Your task to perform on an android device: check android version Image 0: 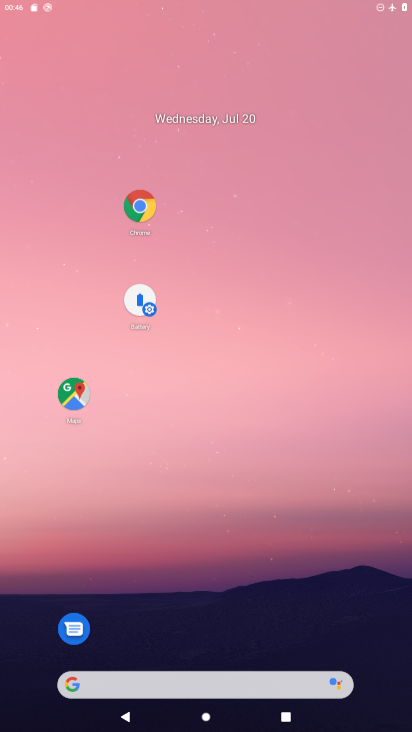
Step 0: drag from (171, 501) to (339, 41)
Your task to perform on an android device: check android version Image 1: 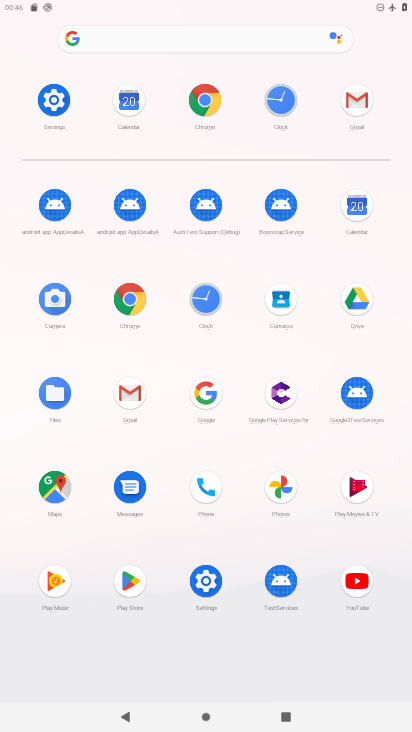
Step 1: click (194, 598)
Your task to perform on an android device: check android version Image 2: 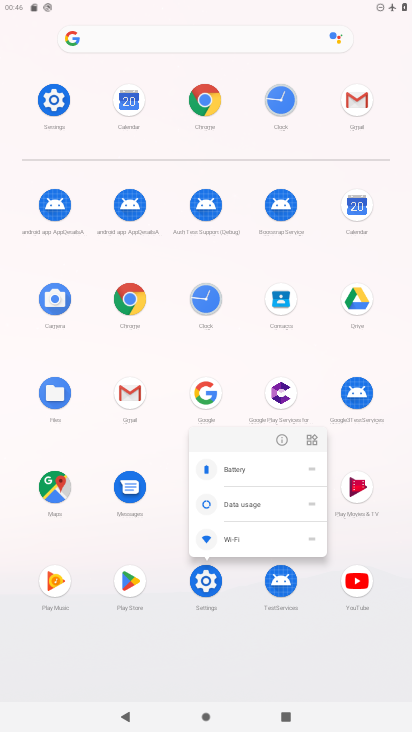
Step 2: click (279, 440)
Your task to perform on an android device: check android version Image 3: 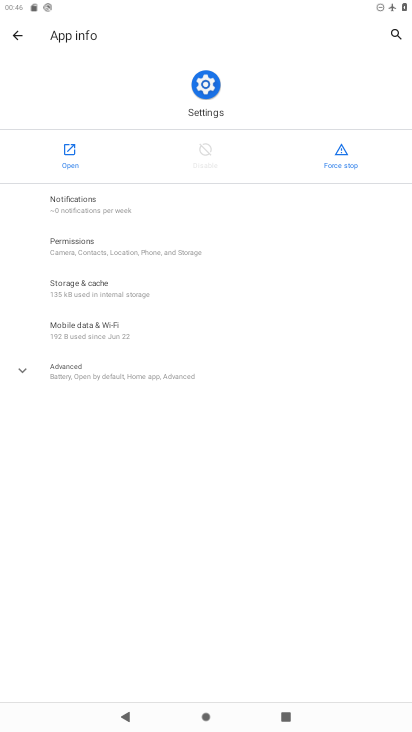
Step 3: click (74, 167)
Your task to perform on an android device: check android version Image 4: 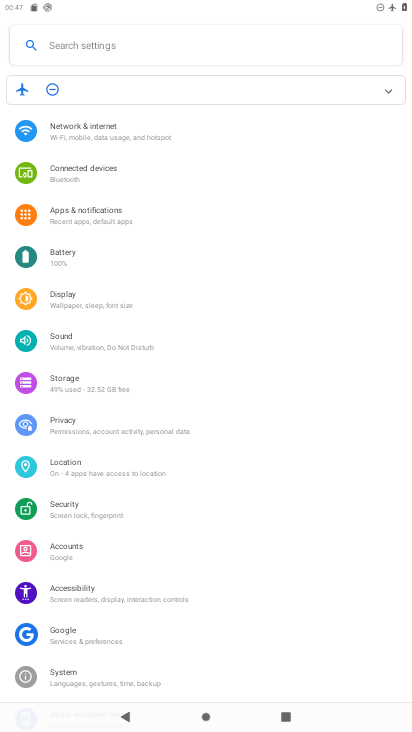
Step 4: click (280, 71)
Your task to perform on an android device: check android version Image 5: 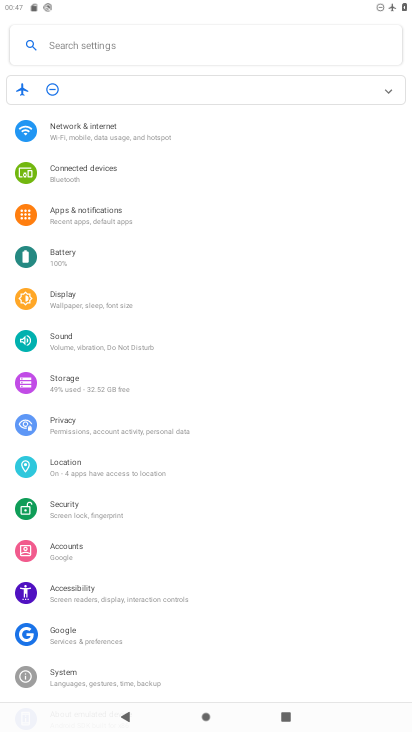
Step 5: drag from (96, 659) to (266, 11)
Your task to perform on an android device: check android version Image 6: 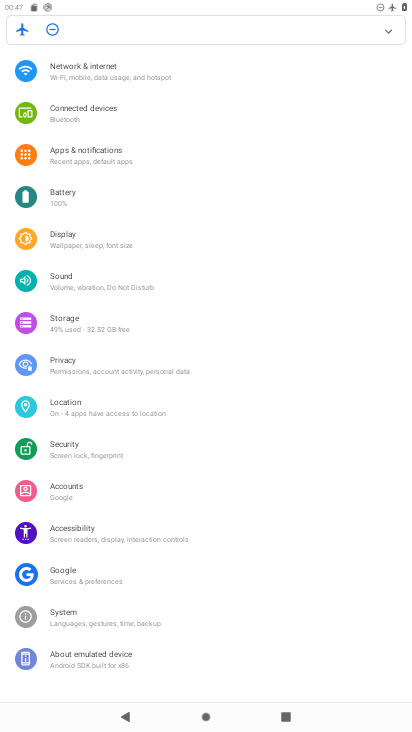
Step 6: click (125, 661)
Your task to perform on an android device: check android version Image 7: 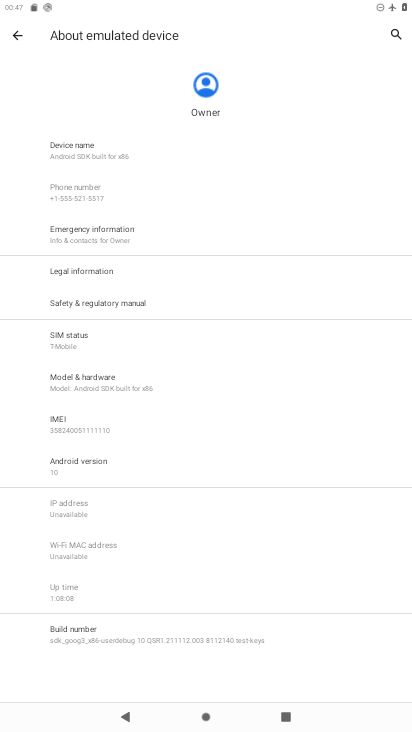
Step 7: click (94, 461)
Your task to perform on an android device: check android version Image 8: 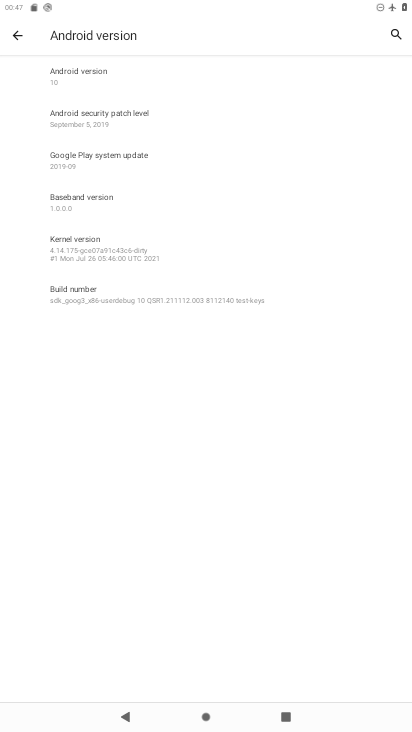
Step 8: drag from (186, 484) to (272, 205)
Your task to perform on an android device: check android version Image 9: 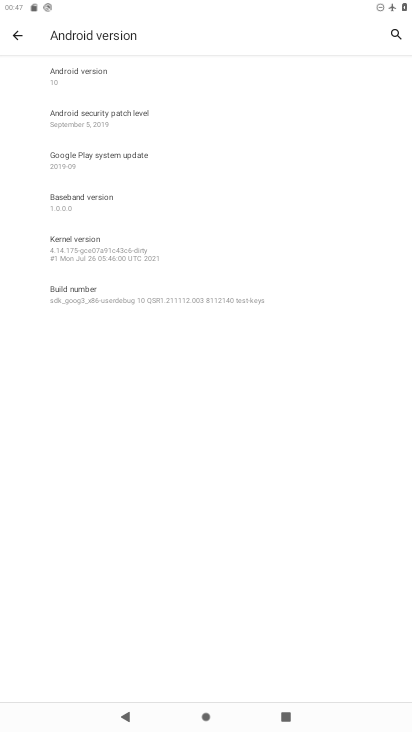
Step 9: click (151, 78)
Your task to perform on an android device: check android version Image 10: 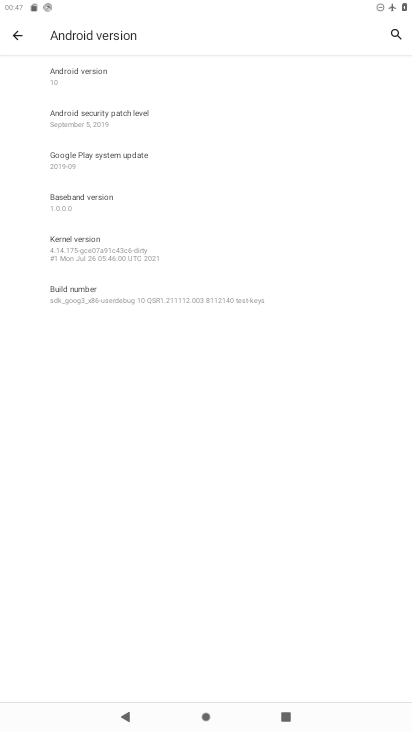
Step 10: task complete